Your task to perform on an android device: change the clock style Image 0: 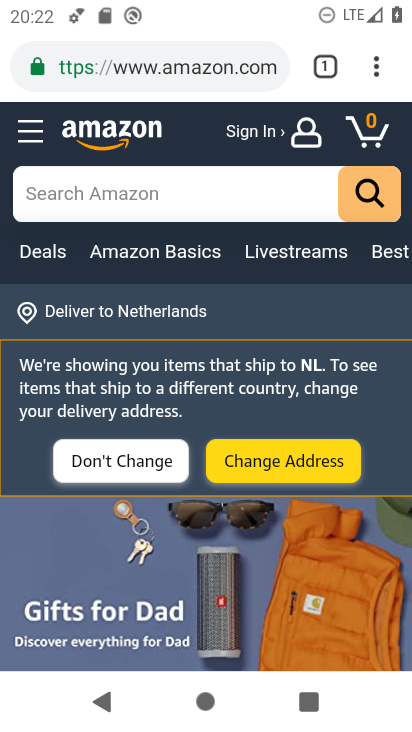
Step 0: press home button
Your task to perform on an android device: change the clock style Image 1: 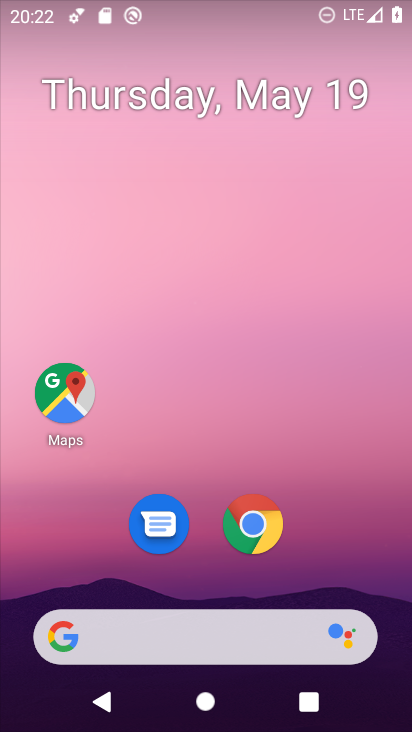
Step 1: drag from (343, 546) to (285, 61)
Your task to perform on an android device: change the clock style Image 2: 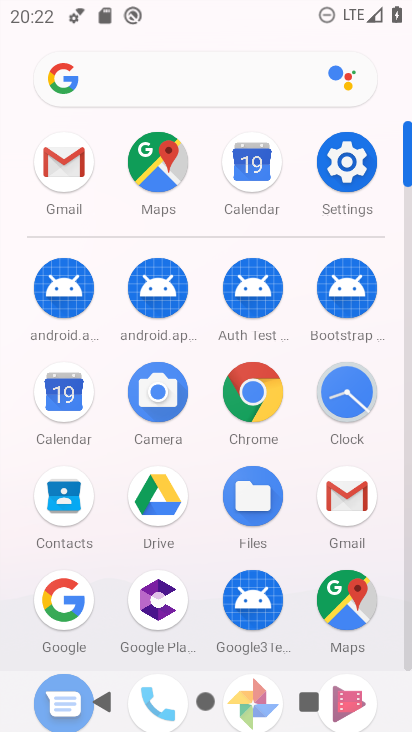
Step 2: click (336, 383)
Your task to perform on an android device: change the clock style Image 3: 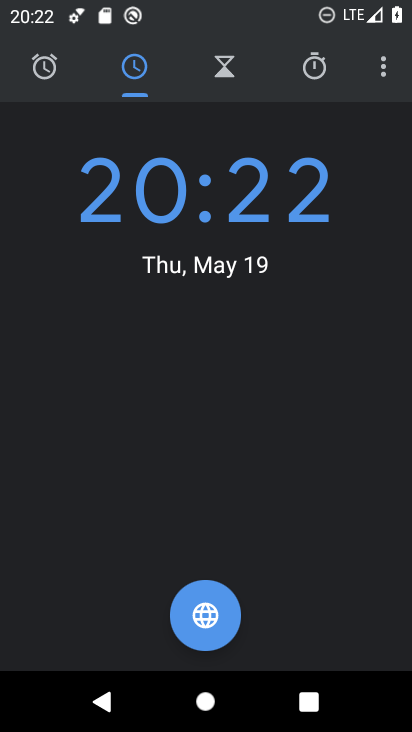
Step 3: click (375, 77)
Your task to perform on an android device: change the clock style Image 4: 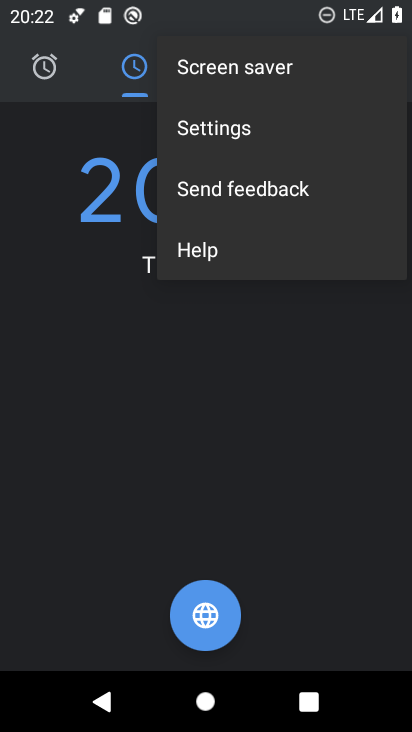
Step 4: click (313, 136)
Your task to perform on an android device: change the clock style Image 5: 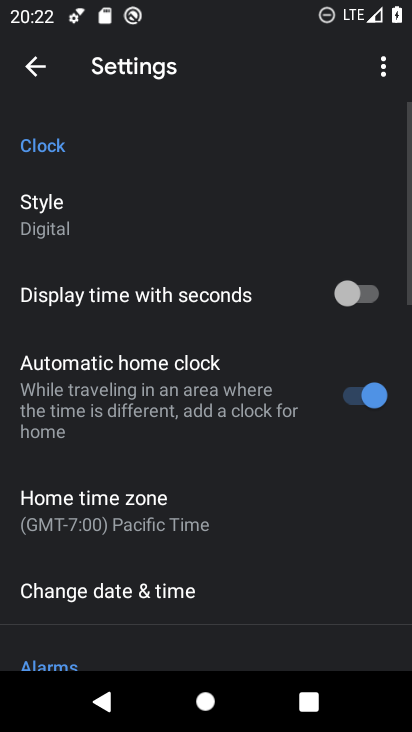
Step 5: click (114, 209)
Your task to perform on an android device: change the clock style Image 6: 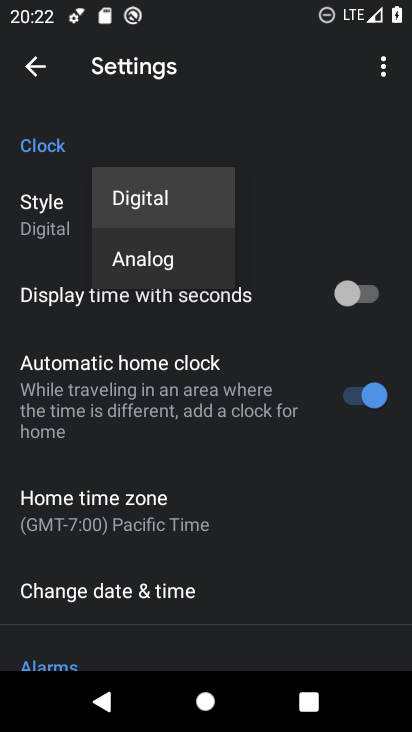
Step 6: click (122, 257)
Your task to perform on an android device: change the clock style Image 7: 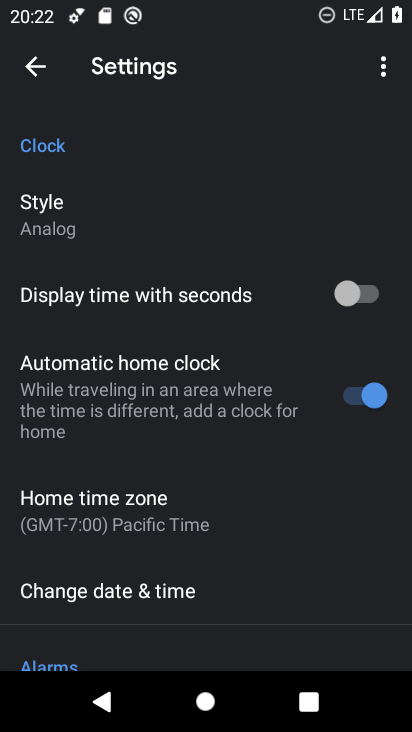
Step 7: click (36, 66)
Your task to perform on an android device: change the clock style Image 8: 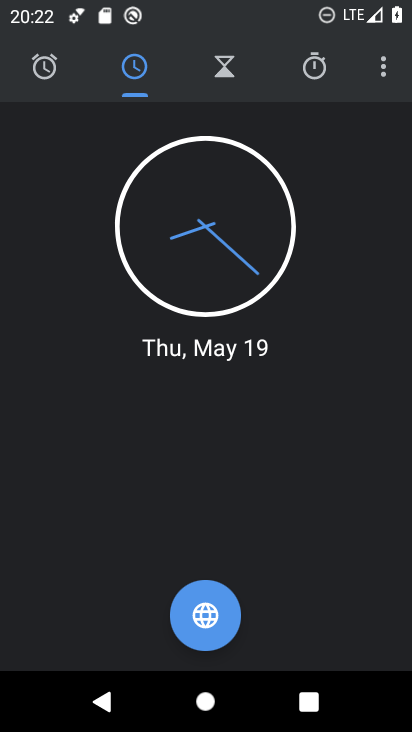
Step 8: task complete